Your task to perform on an android device: toggle data saver in the chrome app Image 0: 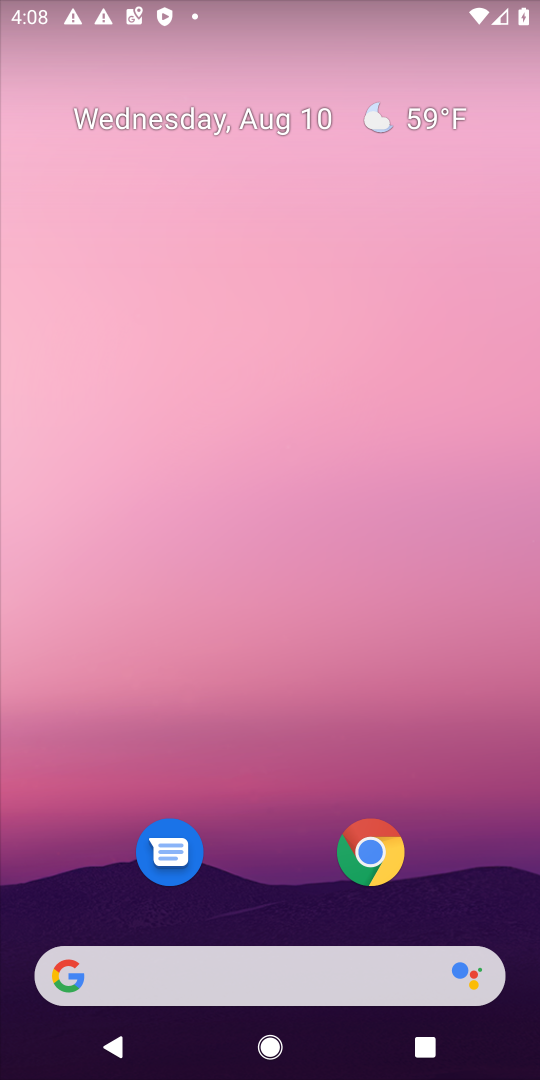
Step 0: drag from (272, 844) to (131, 283)
Your task to perform on an android device: toggle data saver in the chrome app Image 1: 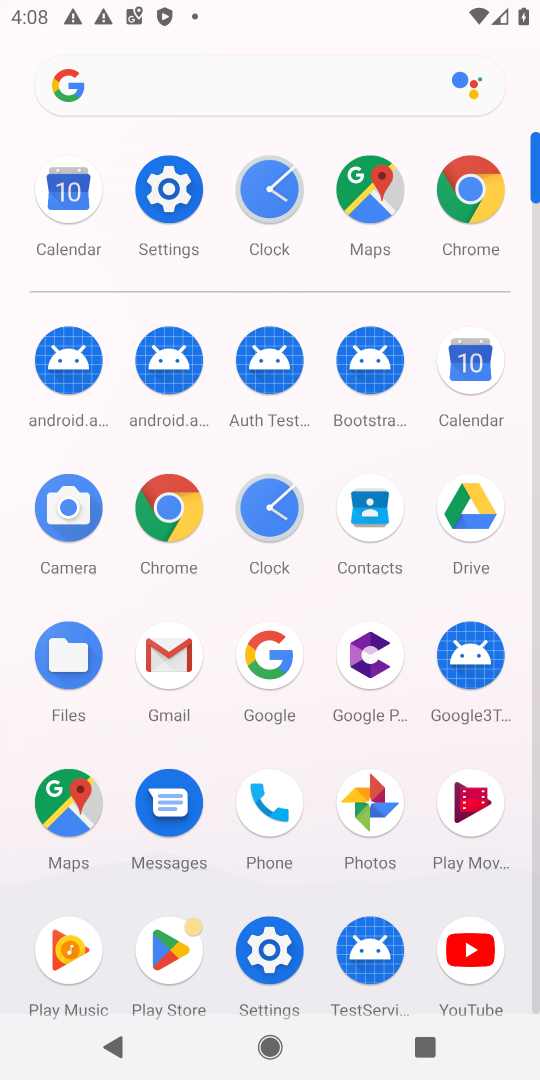
Step 1: click (42, 560)
Your task to perform on an android device: toggle data saver in the chrome app Image 2: 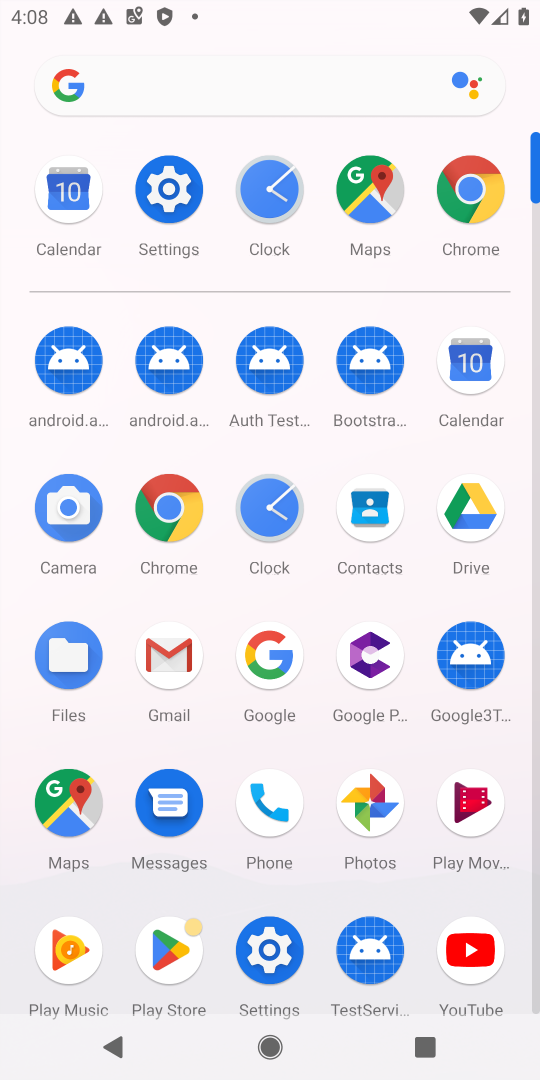
Step 2: click (165, 507)
Your task to perform on an android device: toggle data saver in the chrome app Image 3: 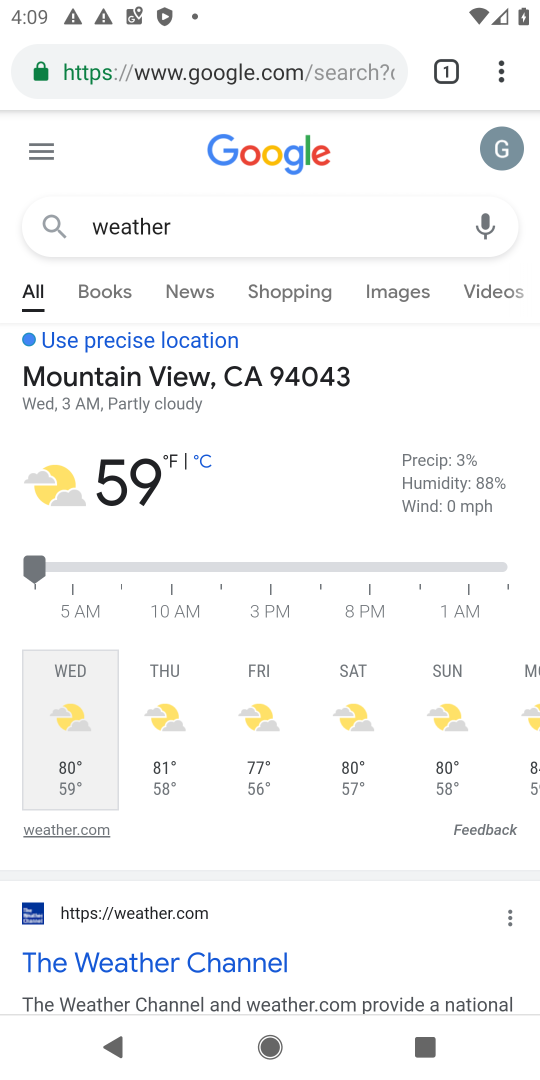
Step 3: drag from (502, 65) to (407, 782)
Your task to perform on an android device: toggle data saver in the chrome app Image 4: 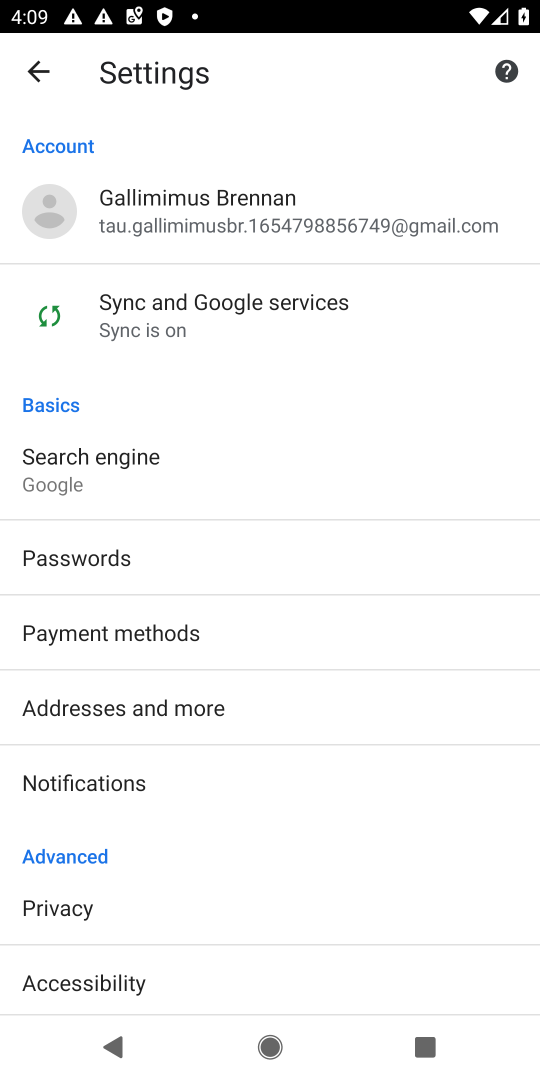
Step 4: drag from (361, 826) to (290, 308)
Your task to perform on an android device: toggle data saver in the chrome app Image 5: 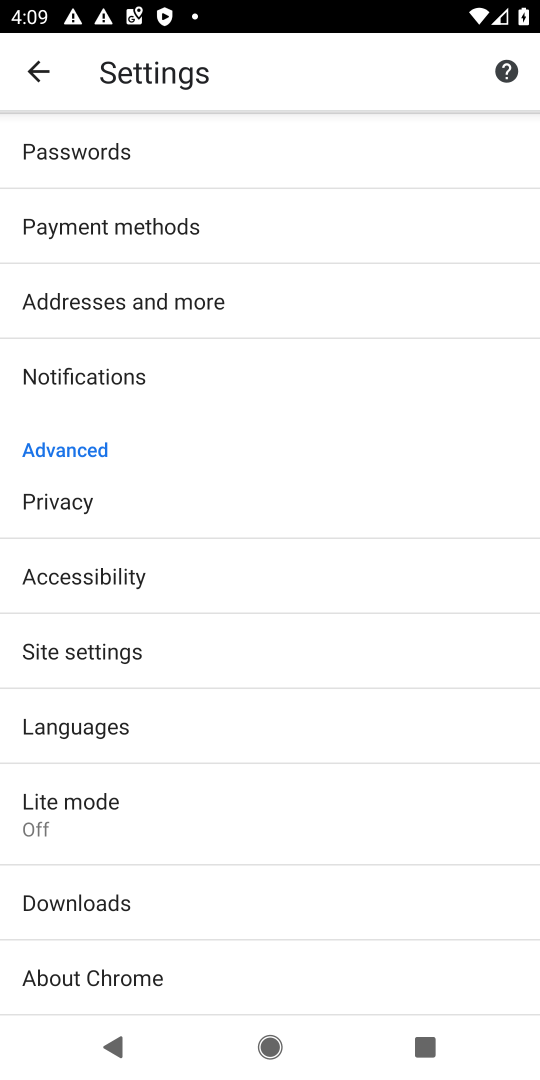
Step 5: click (65, 818)
Your task to perform on an android device: toggle data saver in the chrome app Image 6: 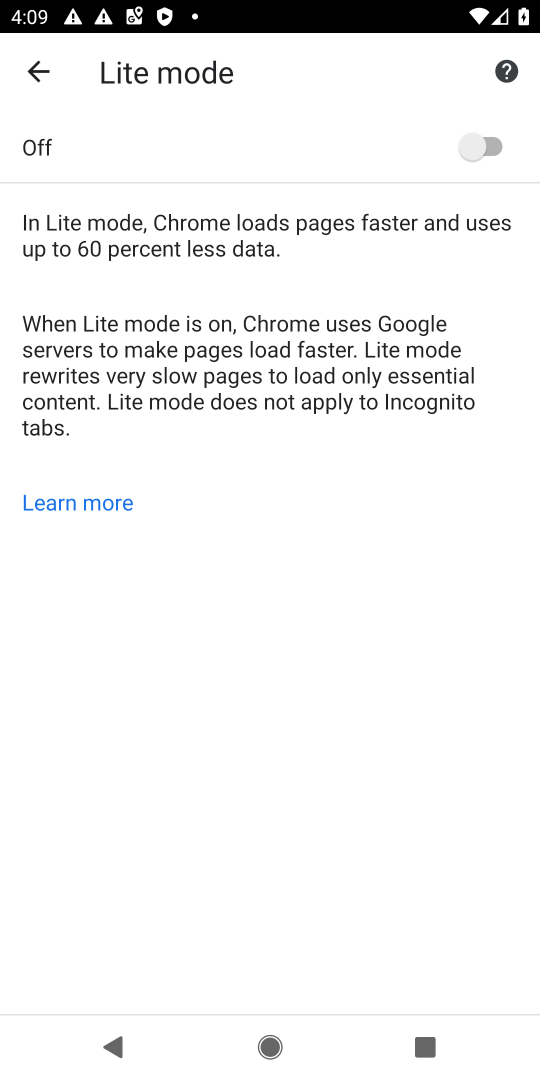
Step 6: click (474, 172)
Your task to perform on an android device: toggle data saver in the chrome app Image 7: 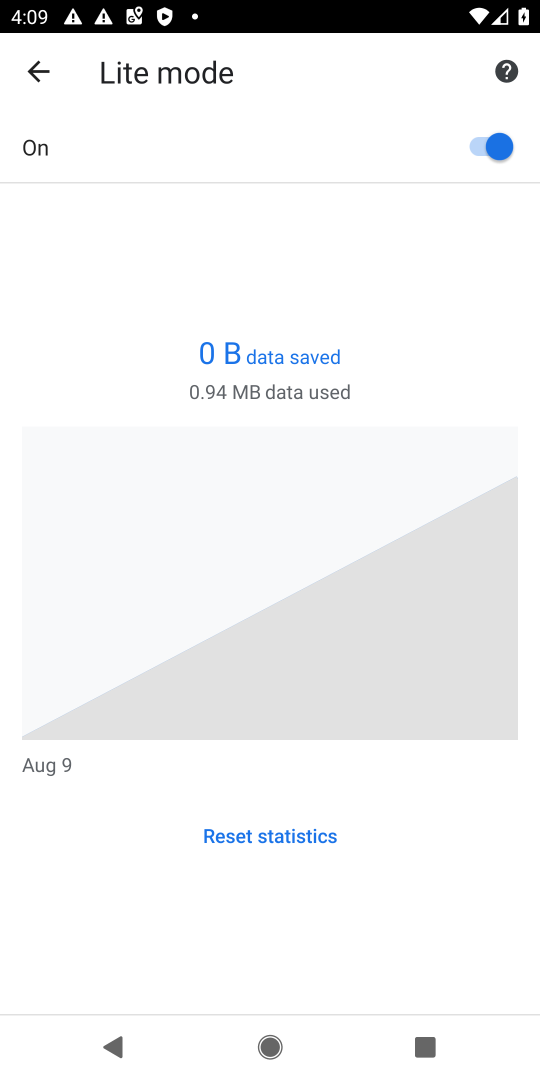
Step 7: task complete